Your task to perform on an android device: find snoozed emails in the gmail app Image 0: 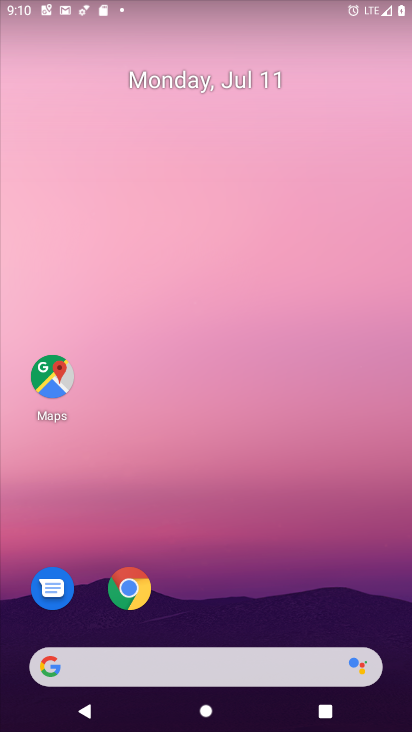
Step 0: drag from (176, 615) to (208, 115)
Your task to perform on an android device: find snoozed emails in the gmail app Image 1: 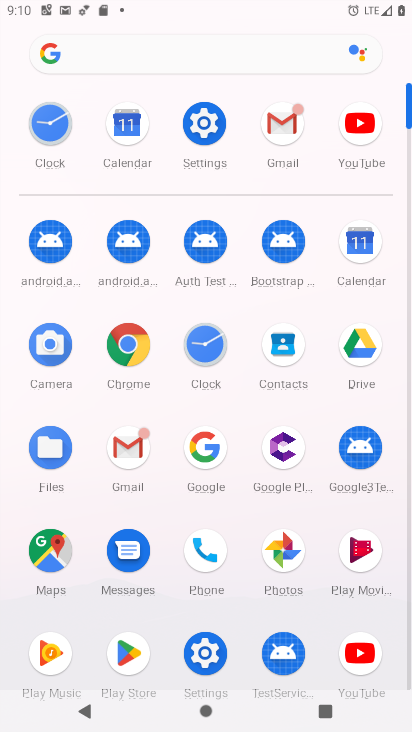
Step 1: click (288, 122)
Your task to perform on an android device: find snoozed emails in the gmail app Image 2: 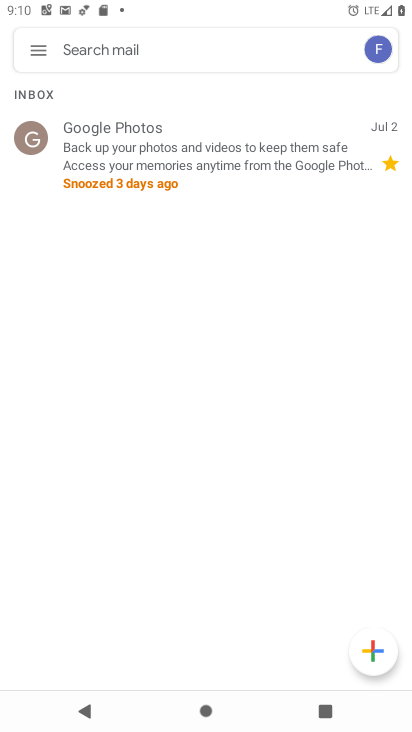
Step 2: click (40, 50)
Your task to perform on an android device: find snoozed emails in the gmail app Image 3: 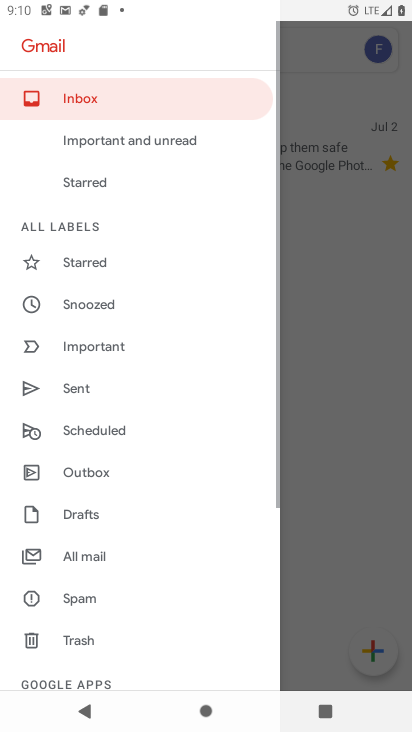
Step 3: click (109, 301)
Your task to perform on an android device: find snoozed emails in the gmail app Image 4: 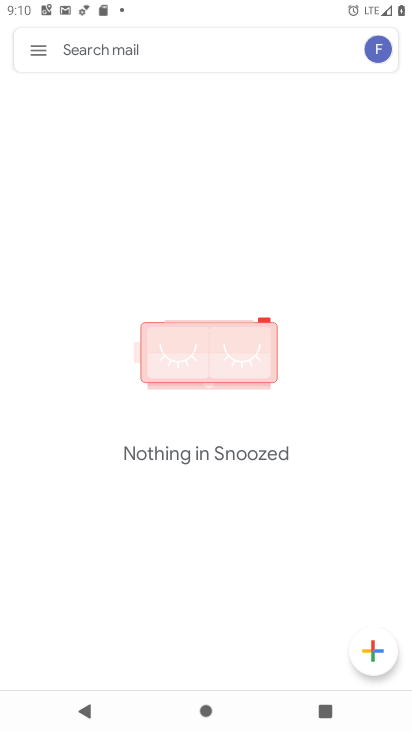
Step 4: task complete